Your task to perform on an android device: open a bookmark in the chrome app Image 0: 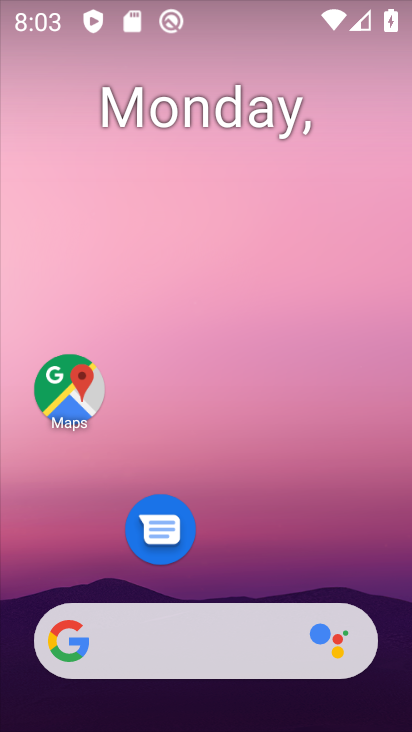
Step 0: drag from (250, 578) to (292, 134)
Your task to perform on an android device: open a bookmark in the chrome app Image 1: 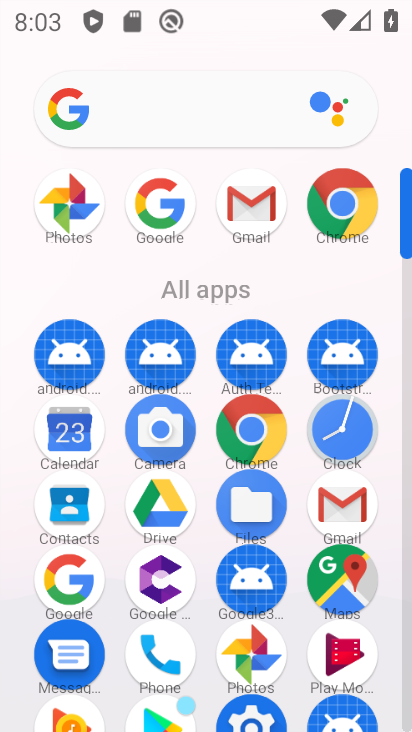
Step 1: click (335, 178)
Your task to perform on an android device: open a bookmark in the chrome app Image 2: 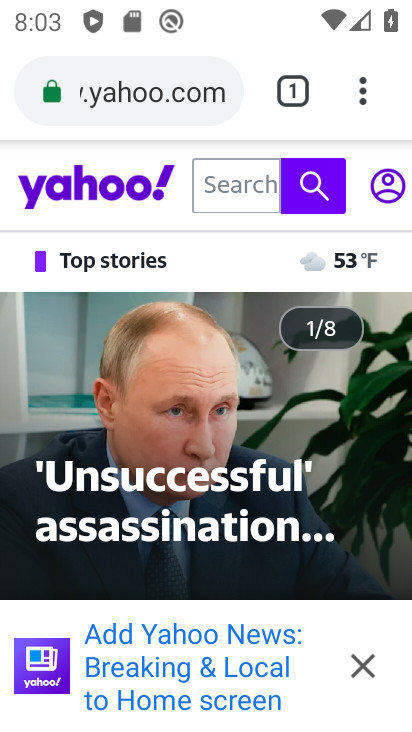
Step 2: drag from (355, 84) to (136, 356)
Your task to perform on an android device: open a bookmark in the chrome app Image 3: 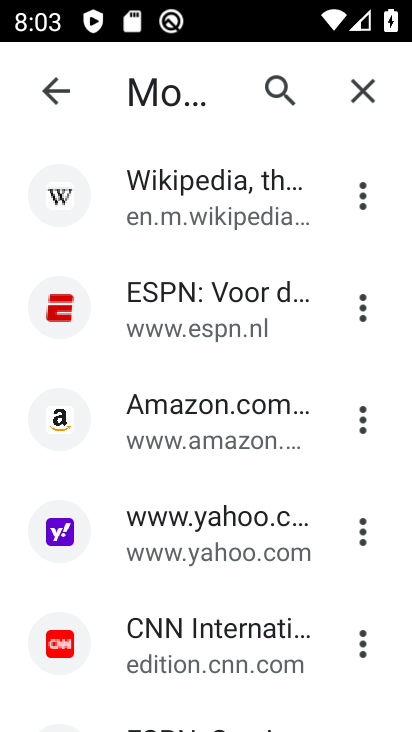
Step 3: click (175, 282)
Your task to perform on an android device: open a bookmark in the chrome app Image 4: 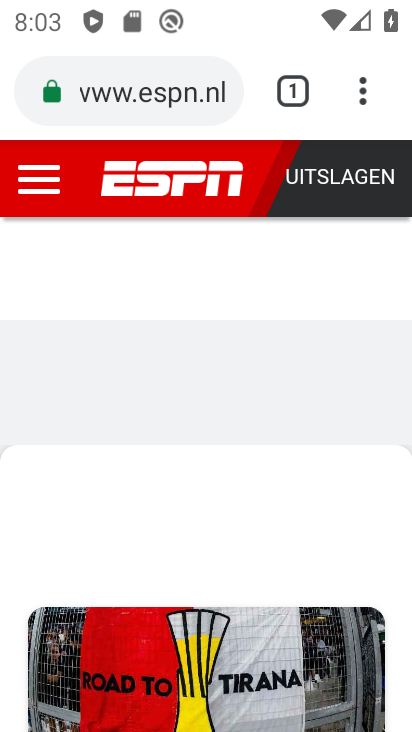
Step 4: task complete